Your task to perform on an android device: turn off improve location accuracy Image 0: 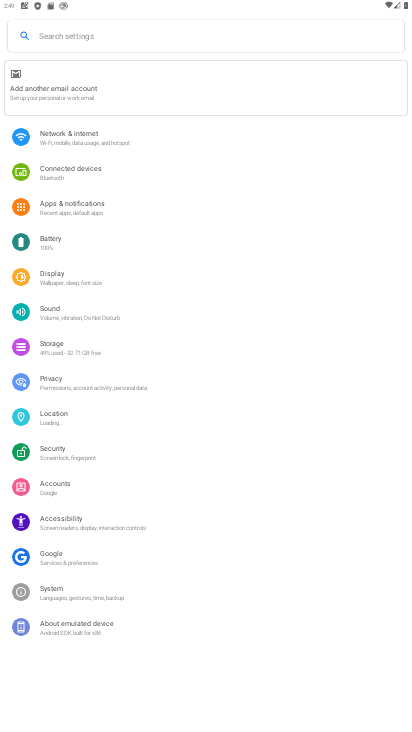
Step 0: press home button
Your task to perform on an android device: turn off improve location accuracy Image 1: 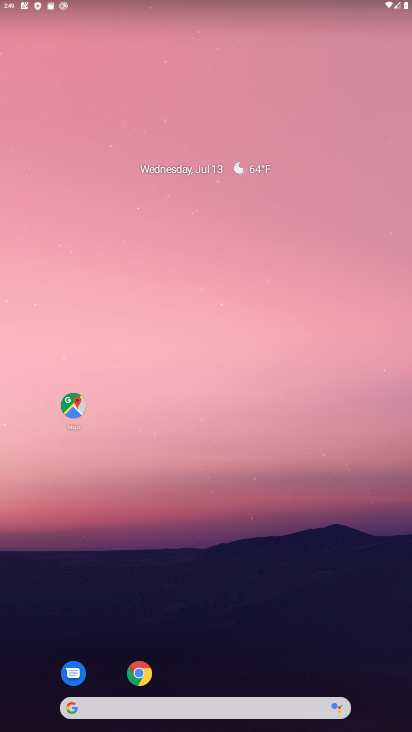
Step 1: drag from (266, 633) to (306, 65)
Your task to perform on an android device: turn off improve location accuracy Image 2: 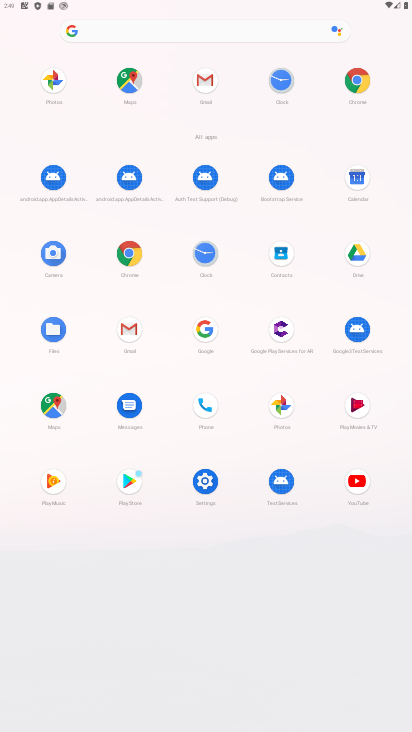
Step 2: click (119, 482)
Your task to perform on an android device: turn off improve location accuracy Image 3: 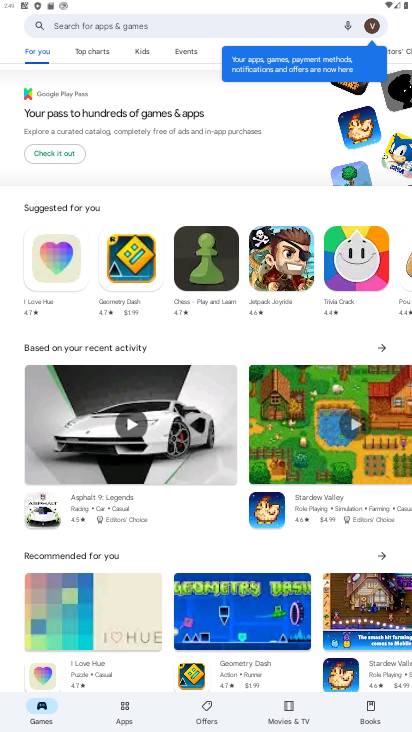
Step 3: press home button
Your task to perform on an android device: turn off improve location accuracy Image 4: 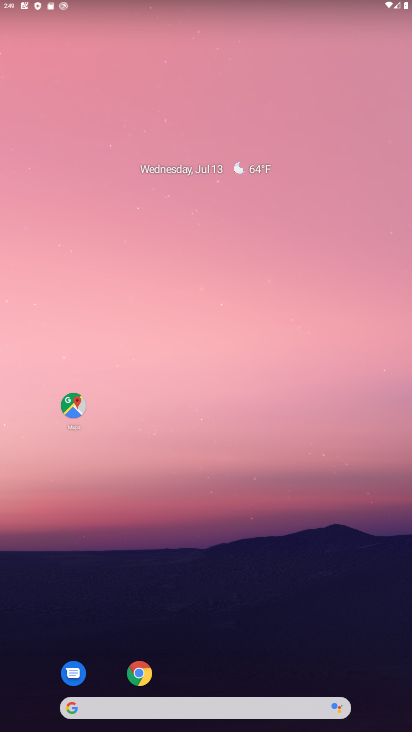
Step 4: drag from (298, 601) to (293, 0)
Your task to perform on an android device: turn off improve location accuracy Image 5: 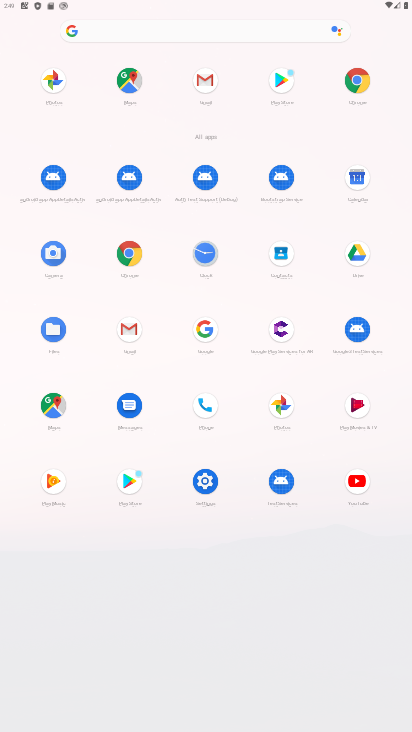
Step 5: click (199, 484)
Your task to perform on an android device: turn off improve location accuracy Image 6: 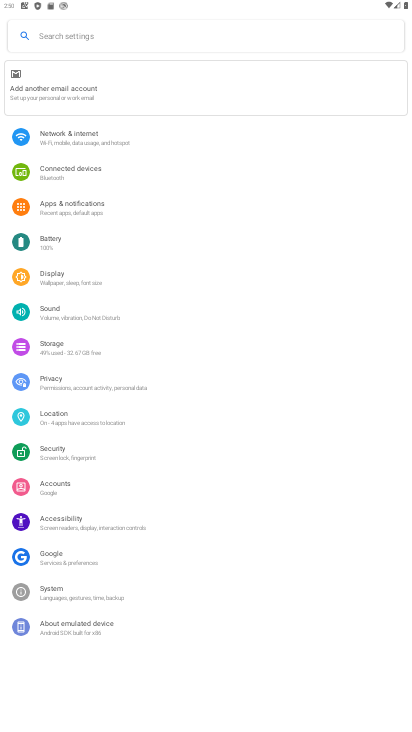
Step 6: click (51, 409)
Your task to perform on an android device: turn off improve location accuracy Image 7: 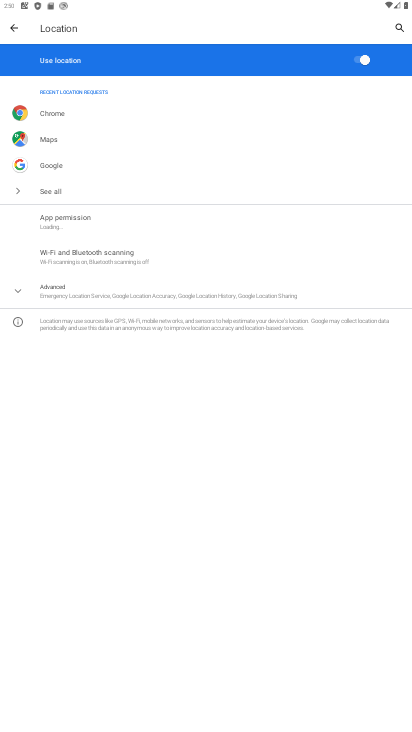
Step 7: click (71, 280)
Your task to perform on an android device: turn off improve location accuracy Image 8: 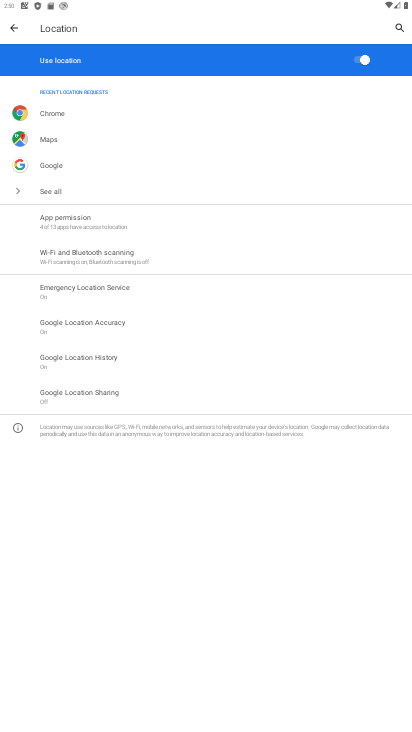
Step 8: click (98, 325)
Your task to perform on an android device: turn off improve location accuracy Image 9: 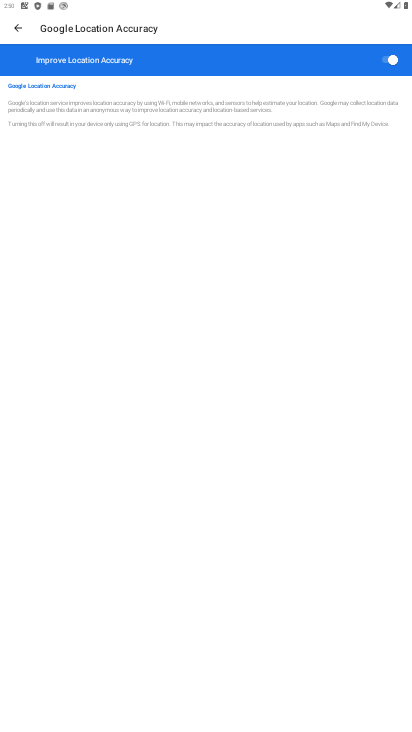
Step 9: click (377, 65)
Your task to perform on an android device: turn off improve location accuracy Image 10: 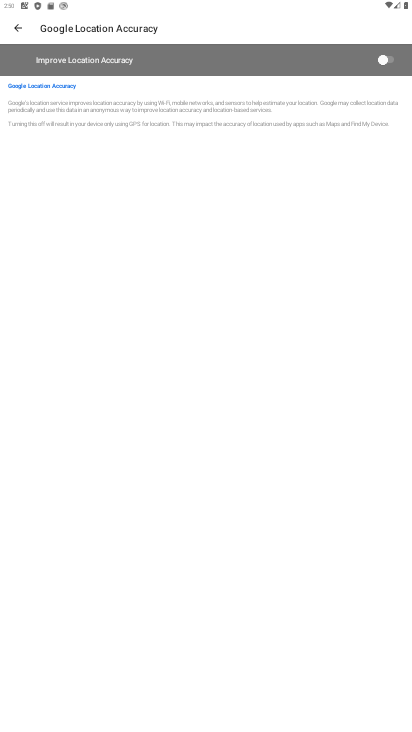
Step 10: task complete